Your task to perform on an android device: Open internet settings Image 0: 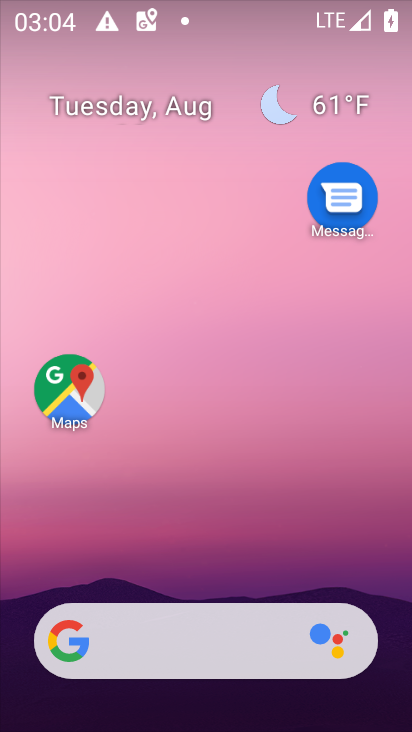
Step 0: drag from (256, 593) to (227, 25)
Your task to perform on an android device: Open internet settings Image 1: 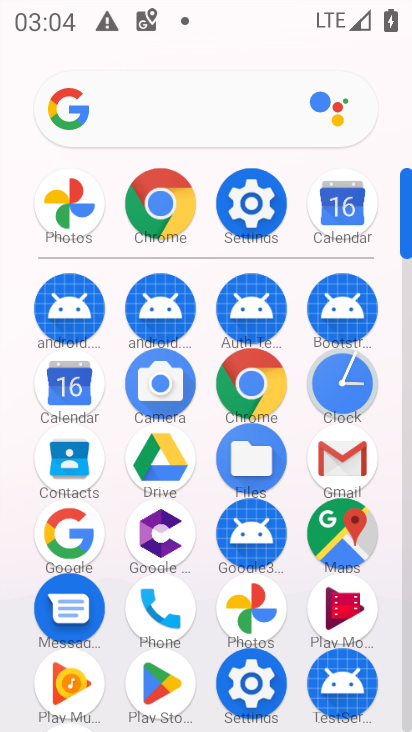
Step 1: click (246, 692)
Your task to perform on an android device: Open internet settings Image 2: 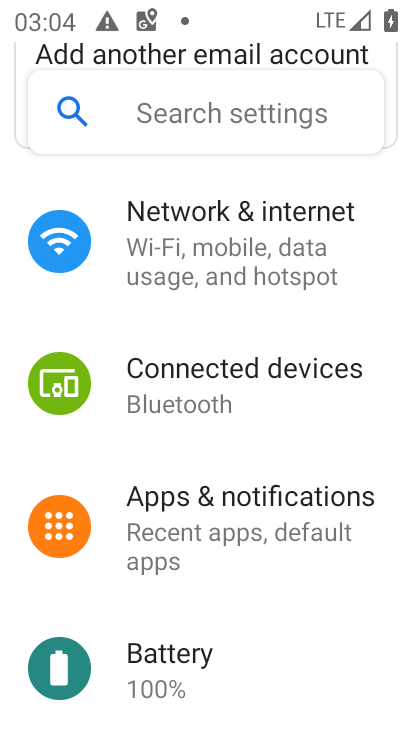
Step 2: click (228, 259)
Your task to perform on an android device: Open internet settings Image 3: 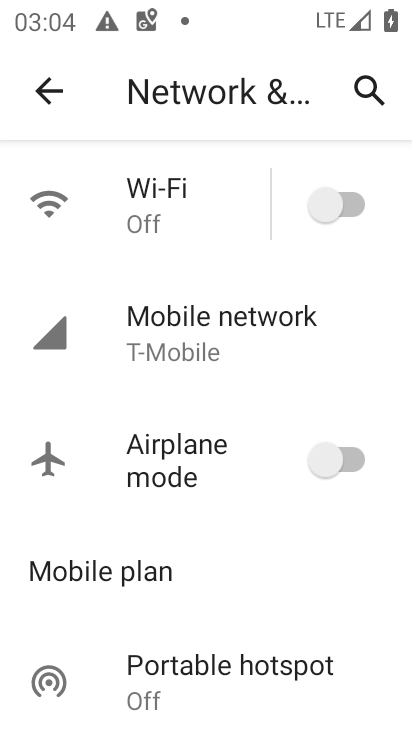
Step 3: task complete